Your task to perform on an android device: What is the recent news? Image 0: 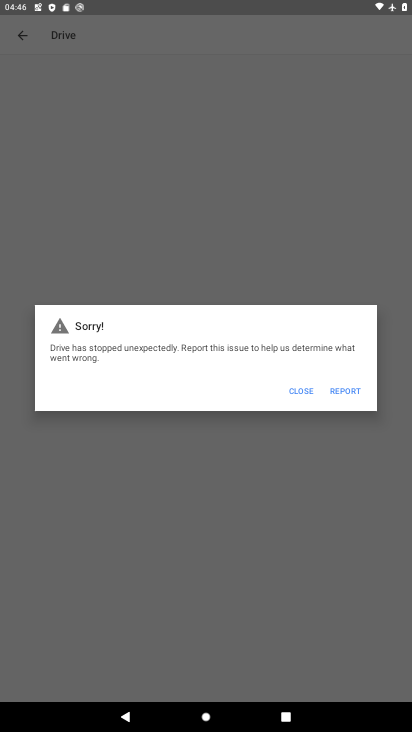
Step 0: press home button
Your task to perform on an android device: What is the recent news? Image 1: 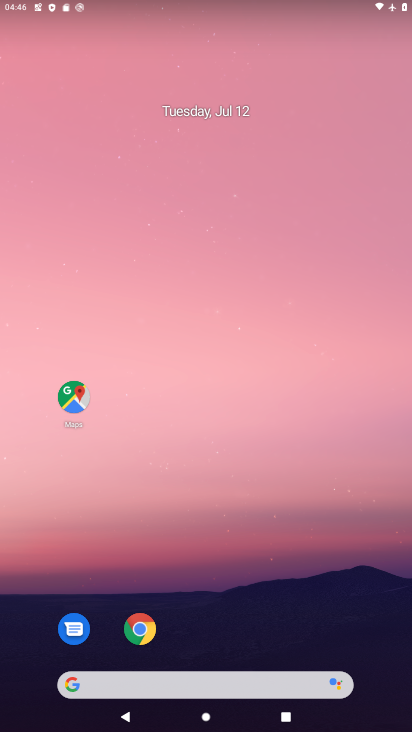
Step 1: drag from (254, 480) to (299, 24)
Your task to perform on an android device: What is the recent news? Image 2: 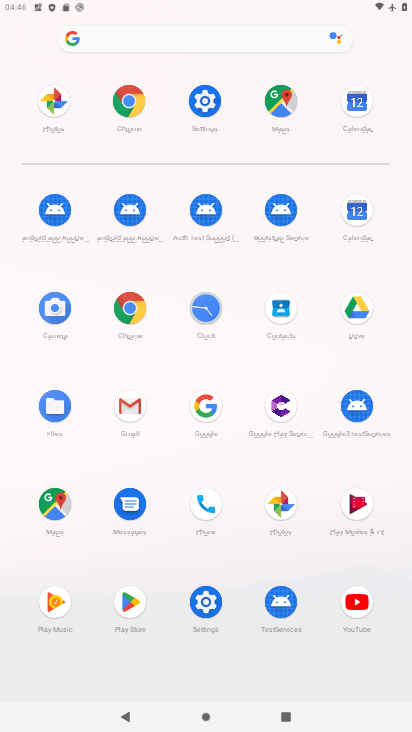
Step 2: click (136, 99)
Your task to perform on an android device: What is the recent news? Image 3: 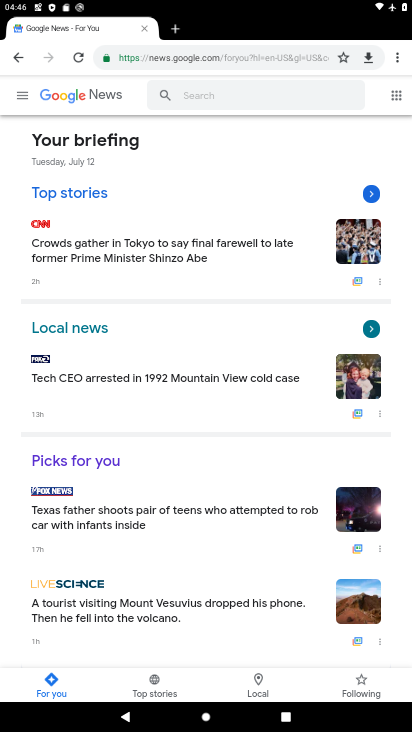
Step 3: task complete